Your task to perform on an android device: When is my next meeting? Image 0: 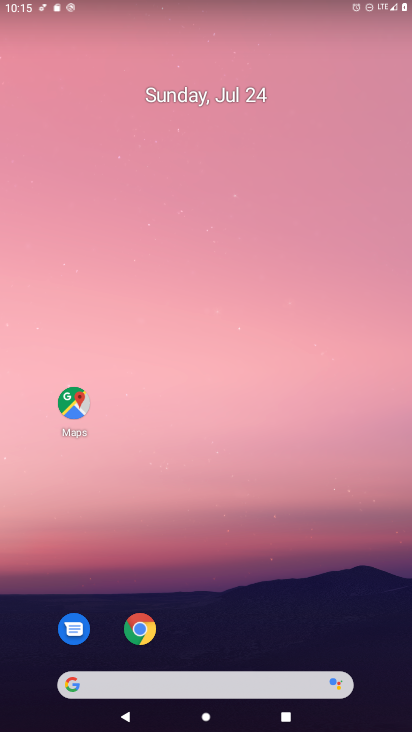
Step 0: drag from (358, 609) to (155, 0)
Your task to perform on an android device: When is my next meeting? Image 1: 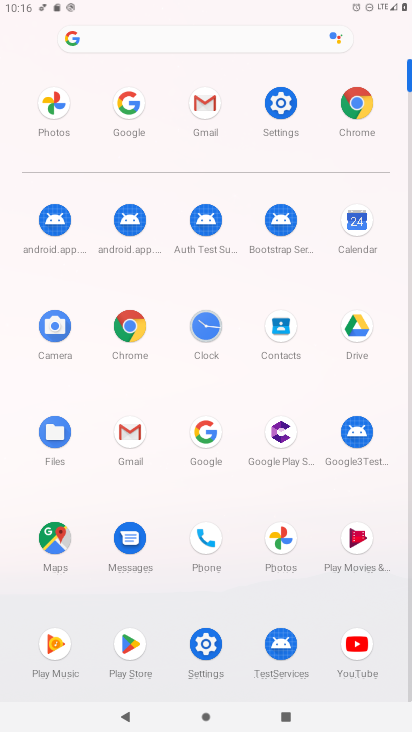
Step 1: click (351, 238)
Your task to perform on an android device: When is my next meeting? Image 2: 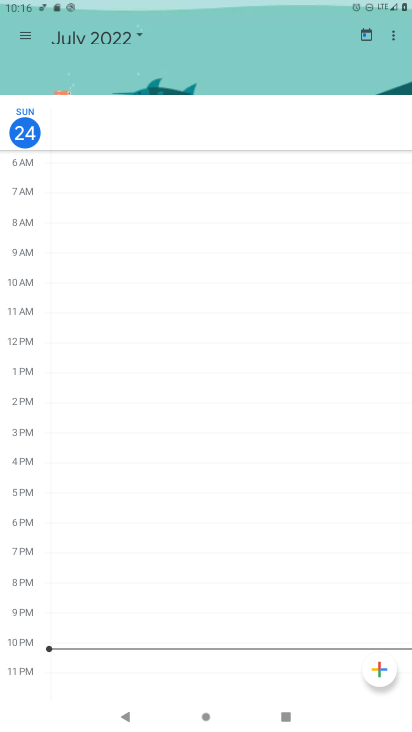
Step 2: task complete